Your task to perform on an android device: toggle pop-ups in chrome Image 0: 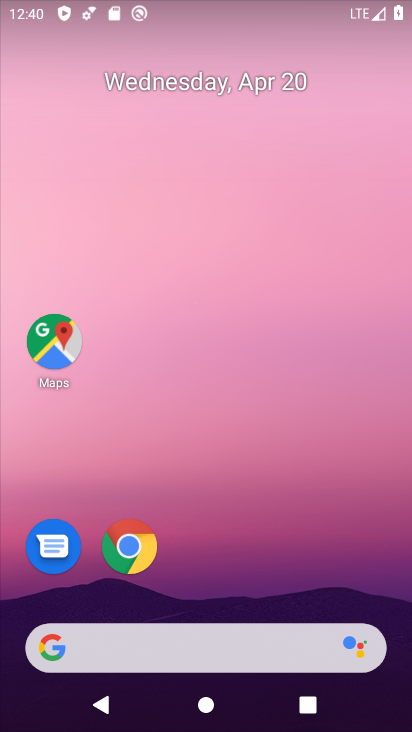
Step 0: click (120, 553)
Your task to perform on an android device: toggle pop-ups in chrome Image 1: 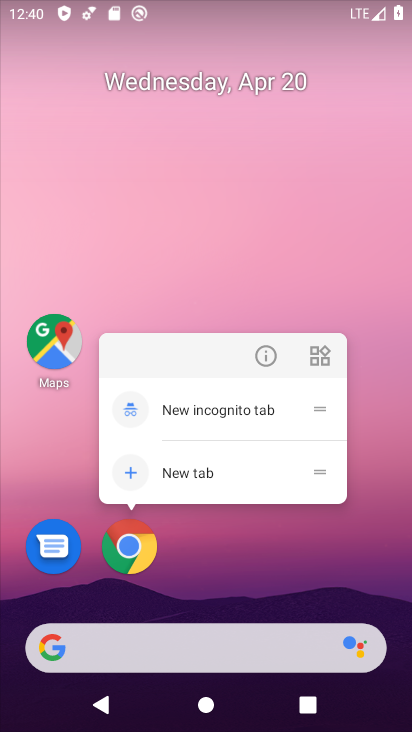
Step 1: click (137, 560)
Your task to perform on an android device: toggle pop-ups in chrome Image 2: 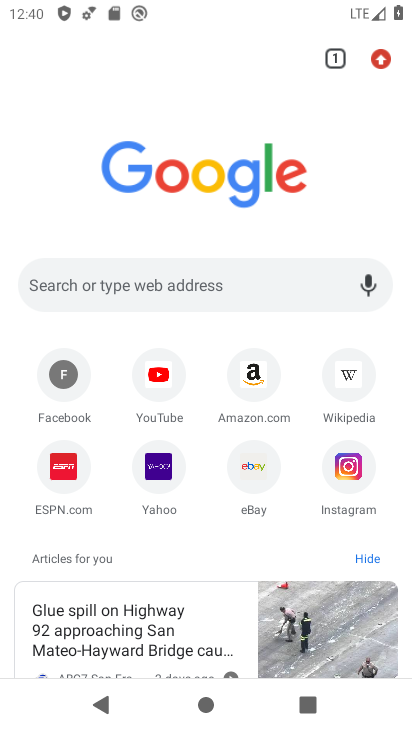
Step 2: drag from (377, 60) to (254, 552)
Your task to perform on an android device: toggle pop-ups in chrome Image 3: 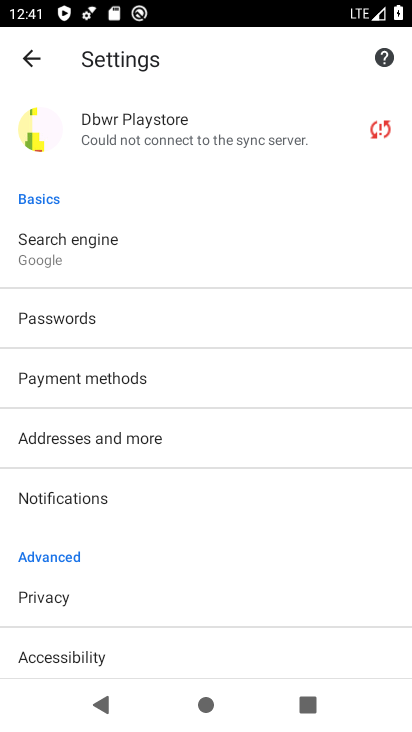
Step 3: drag from (193, 567) to (326, 140)
Your task to perform on an android device: toggle pop-ups in chrome Image 4: 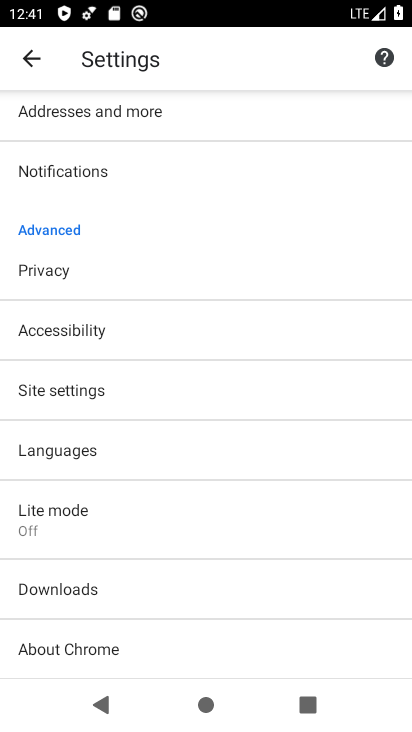
Step 4: click (159, 388)
Your task to perform on an android device: toggle pop-ups in chrome Image 5: 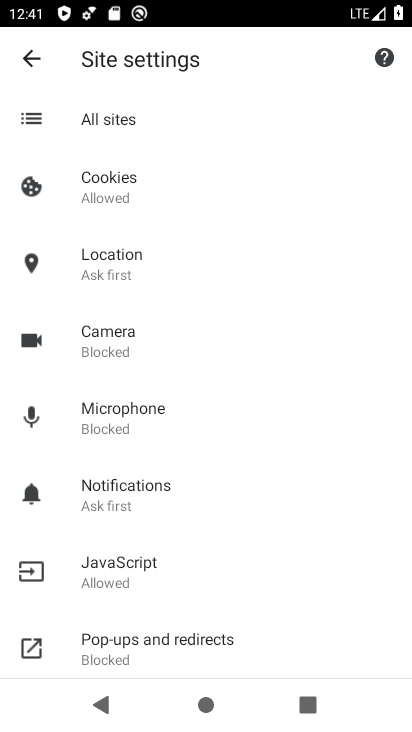
Step 5: click (201, 648)
Your task to perform on an android device: toggle pop-ups in chrome Image 6: 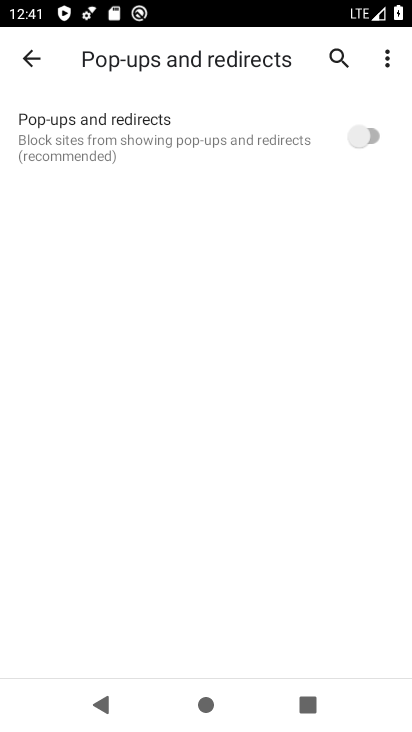
Step 6: click (386, 134)
Your task to perform on an android device: toggle pop-ups in chrome Image 7: 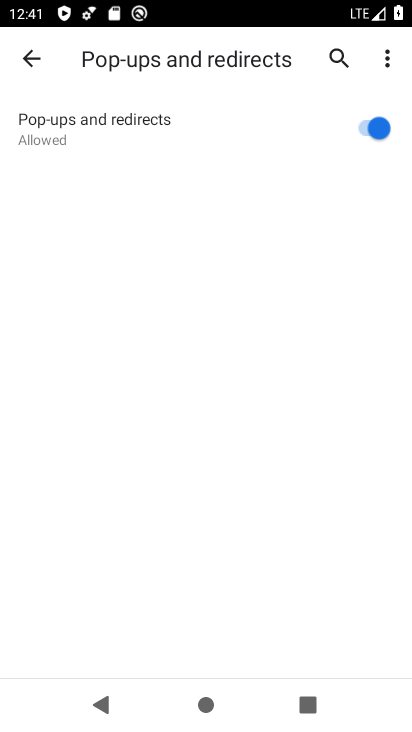
Step 7: task complete